Your task to perform on an android device: toggle airplane mode Image 0: 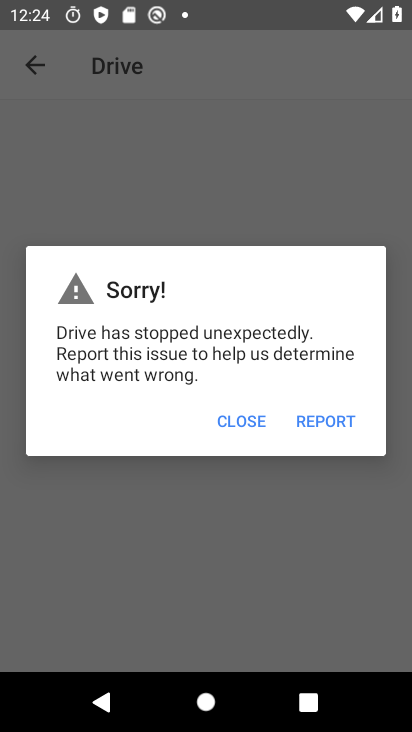
Step 0: press home button
Your task to perform on an android device: toggle airplane mode Image 1: 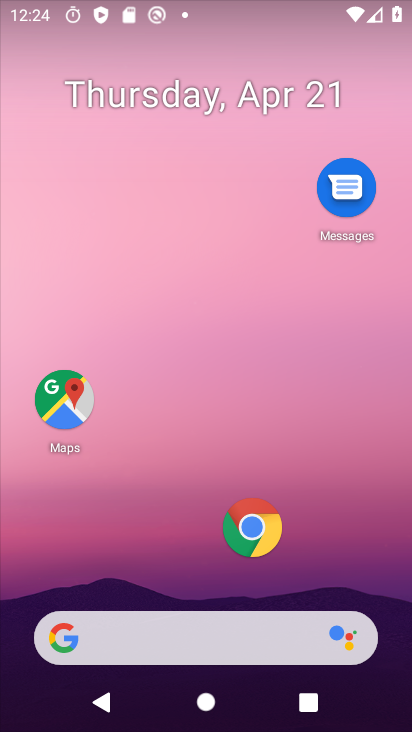
Step 1: drag from (339, 587) to (288, 151)
Your task to perform on an android device: toggle airplane mode Image 2: 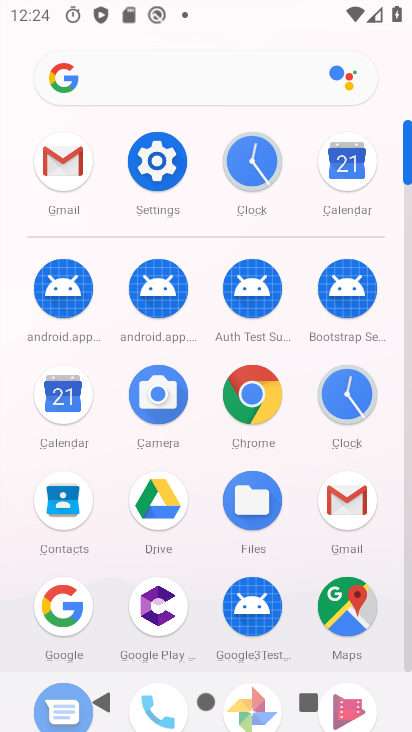
Step 2: click (162, 164)
Your task to perform on an android device: toggle airplane mode Image 3: 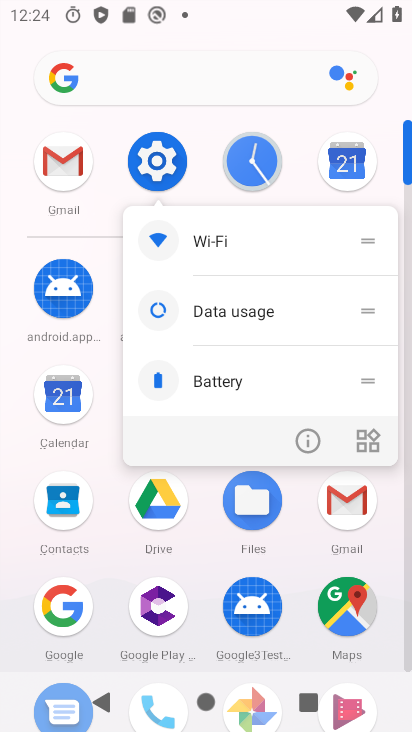
Step 3: click (162, 164)
Your task to perform on an android device: toggle airplane mode Image 4: 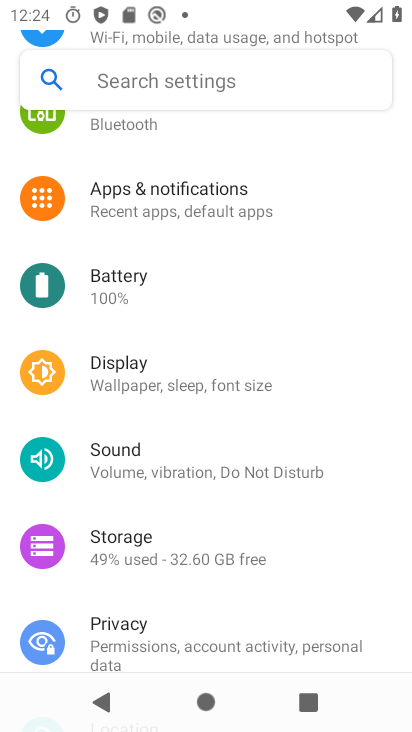
Step 4: drag from (165, 165) to (180, 211)
Your task to perform on an android device: toggle airplane mode Image 5: 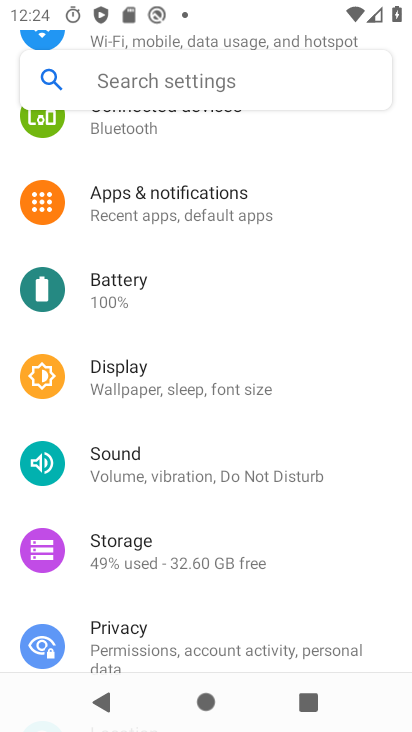
Step 5: drag from (178, 173) to (192, 211)
Your task to perform on an android device: toggle airplane mode Image 6: 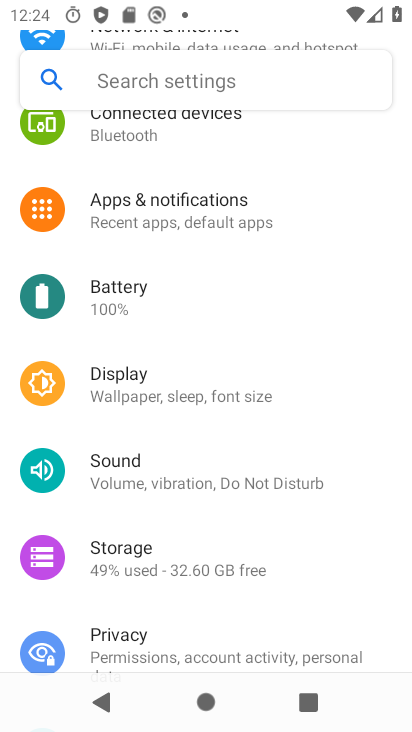
Step 6: drag from (181, 164) to (178, 217)
Your task to perform on an android device: toggle airplane mode Image 7: 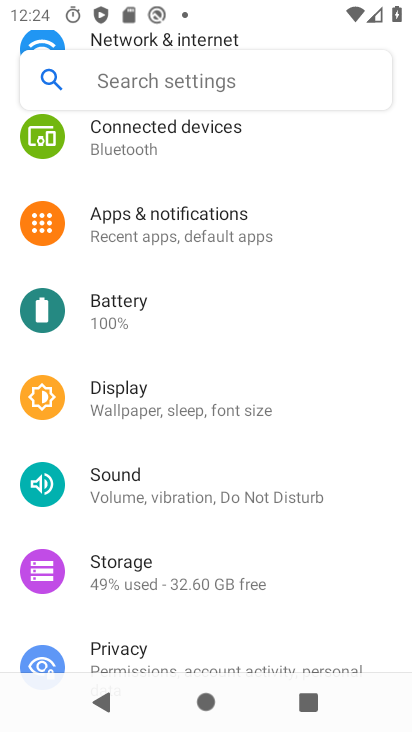
Step 7: drag from (184, 163) to (206, 224)
Your task to perform on an android device: toggle airplane mode Image 8: 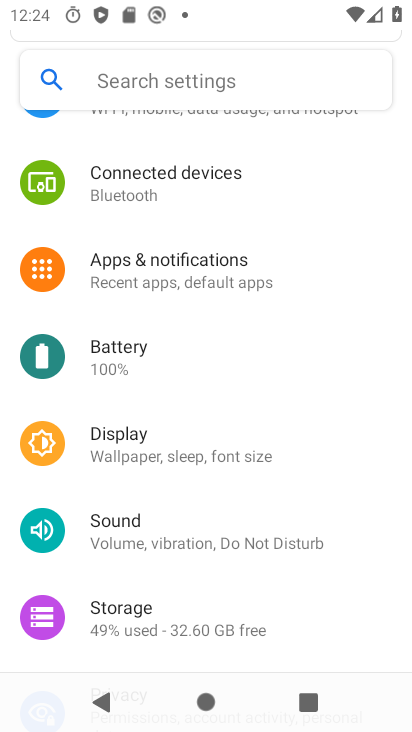
Step 8: drag from (195, 197) to (213, 243)
Your task to perform on an android device: toggle airplane mode Image 9: 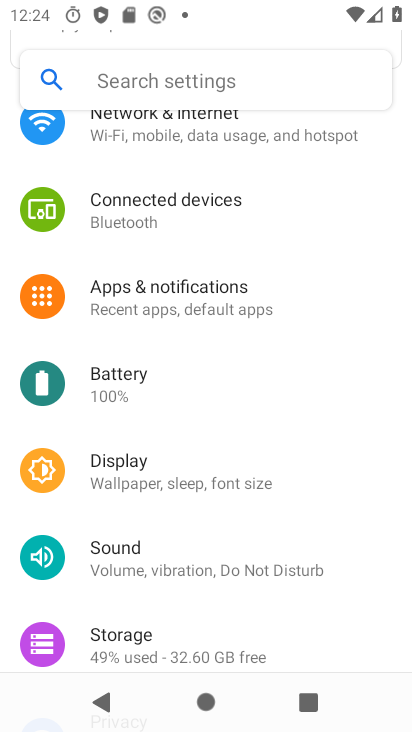
Step 9: drag from (211, 239) to (227, 285)
Your task to perform on an android device: toggle airplane mode Image 10: 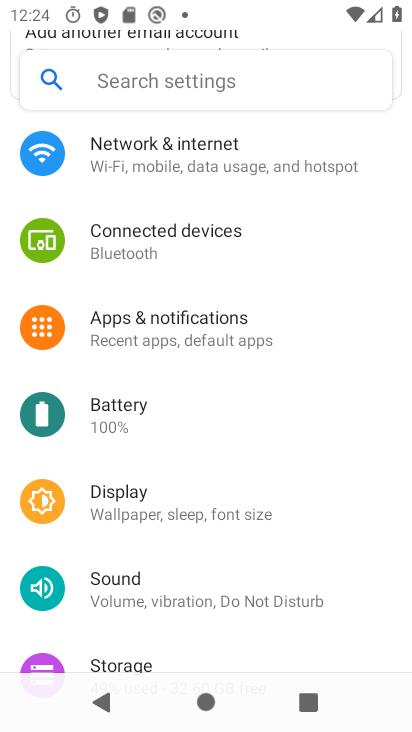
Step 10: click (207, 181)
Your task to perform on an android device: toggle airplane mode Image 11: 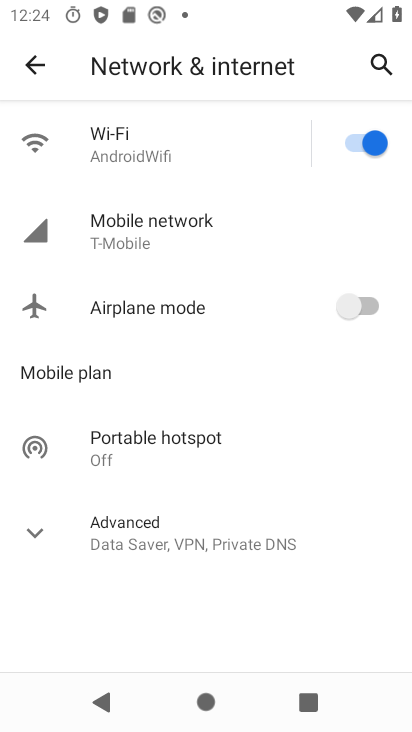
Step 11: click (340, 313)
Your task to perform on an android device: toggle airplane mode Image 12: 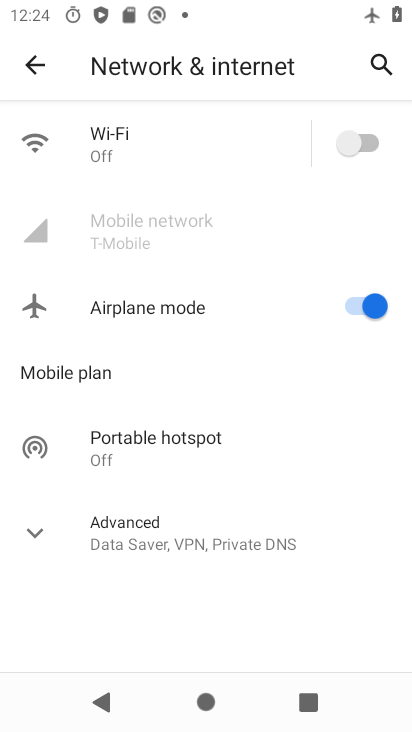
Step 12: task complete